Your task to perform on an android device: Go to privacy settings Image 0: 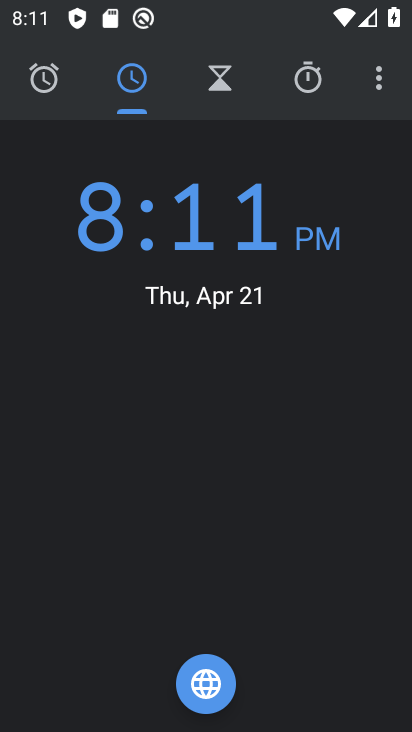
Step 0: press back button
Your task to perform on an android device: Go to privacy settings Image 1: 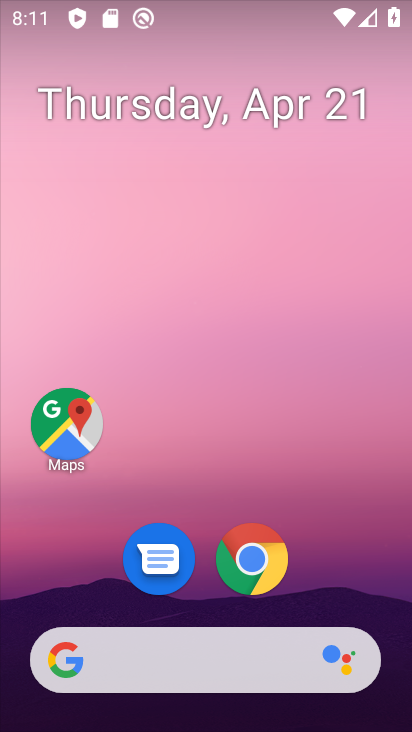
Step 1: click (238, 573)
Your task to perform on an android device: Go to privacy settings Image 2: 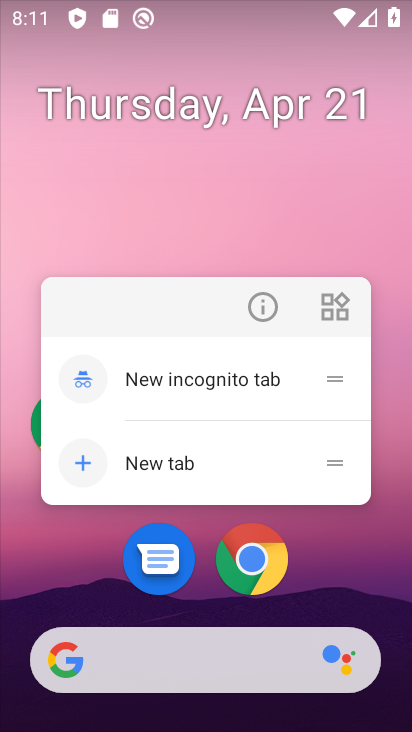
Step 2: click (264, 558)
Your task to perform on an android device: Go to privacy settings Image 3: 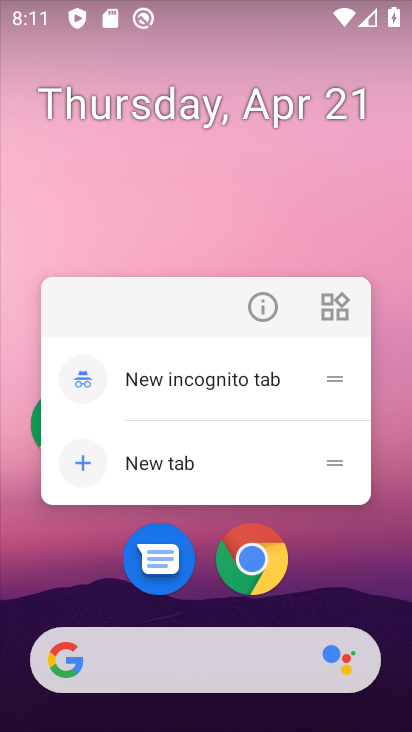
Step 3: click (252, 553)
Your task to perform on an android device: Go to privacy settings Image 4: 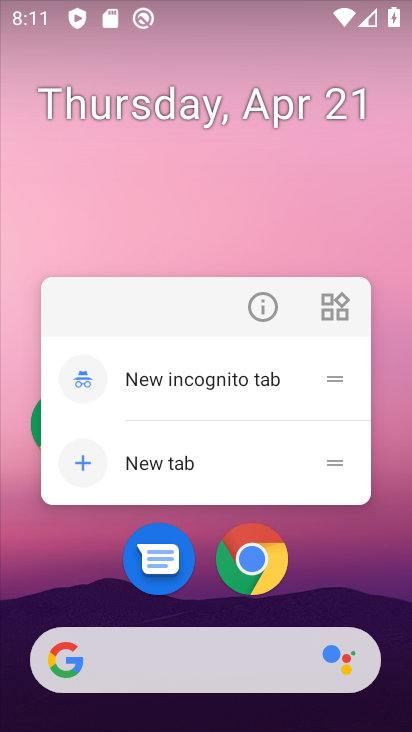
Step 4: click (277, 569)
Your task to perform on an android device: Go to privacy settings Image 5: 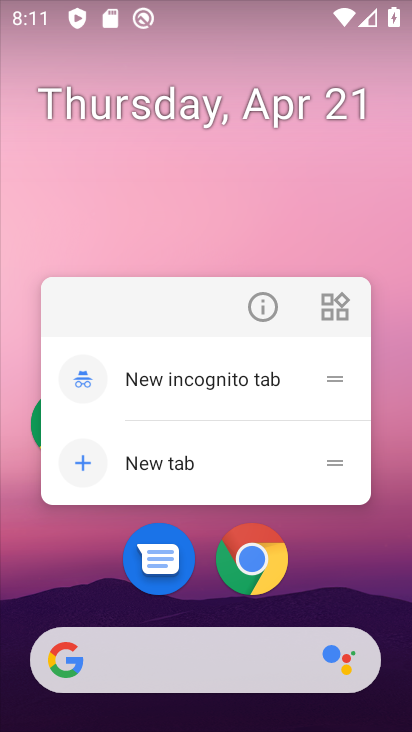
Step 5: drag from (338, 572) to (409, 536)
Your task to perform on an android device: Go to privacy settings Image 6: 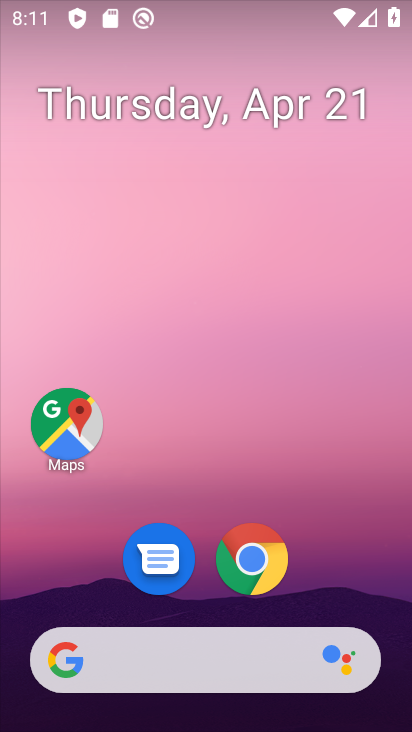
Step 6: drag from (235, 590) to (402, 8)
Your task to perform on an android device: Go to privacy settings Image 7: 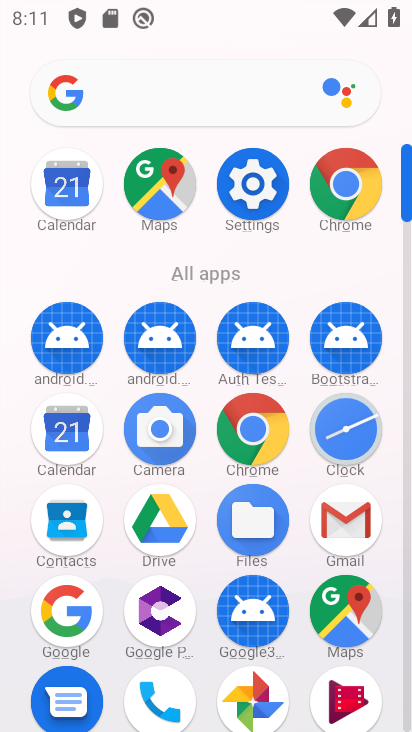
Step 7: click (336, 190)
Your task to perform on an android device: Go to privacy settings Image 8: 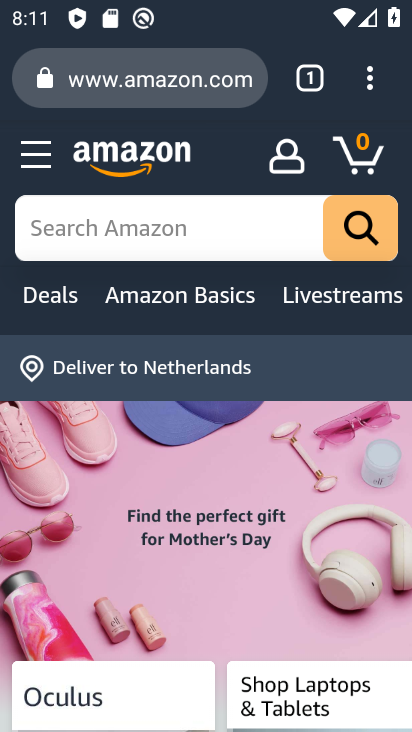
Step 8: drag from (367, 82) to (266, 625)
Your task to perform on an android device: Go to privacy settings Image 9: 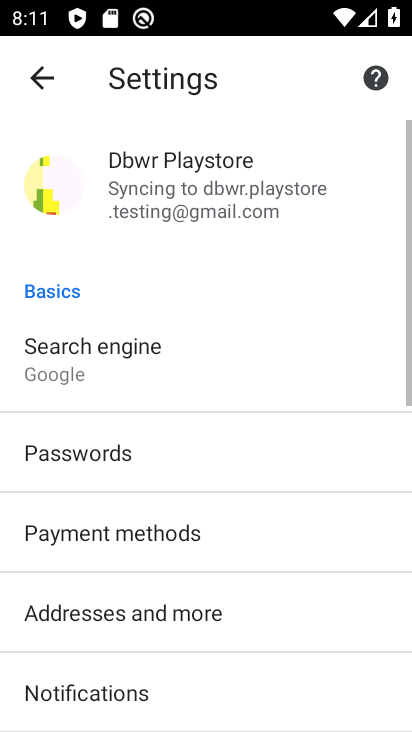
Step 9: drag from (171, 684) to (273, 285)
Your task to perform on an android device: Go to privacy settings Image 10: 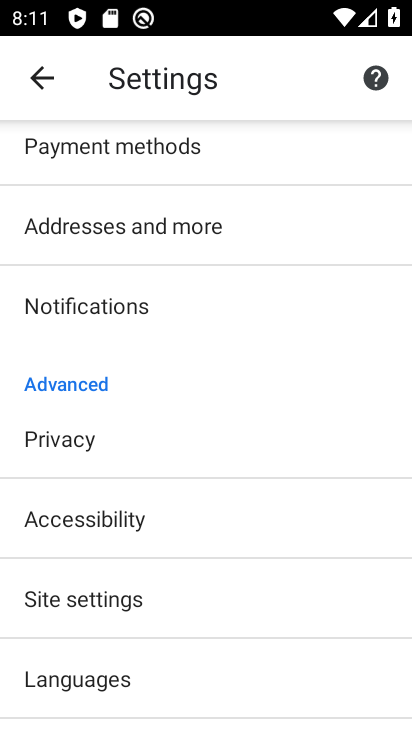
Step 10: click (109, 439)
Your task to perform on an android device: Go to privacy settings Image 11: 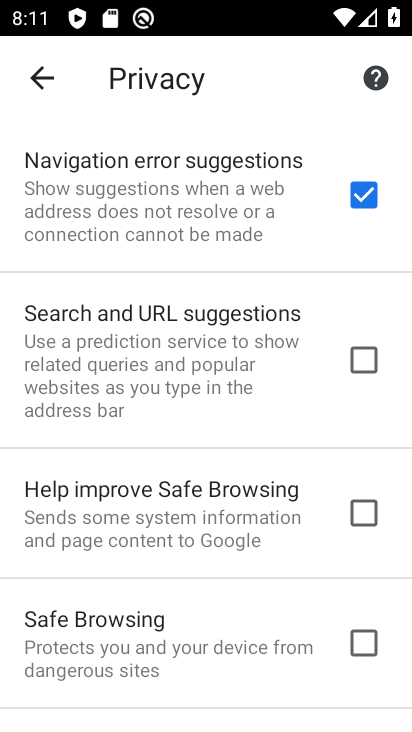
Step 11: task complete